Your task to perform on an android device: What's the weather going to be tomorrow? Image 0: 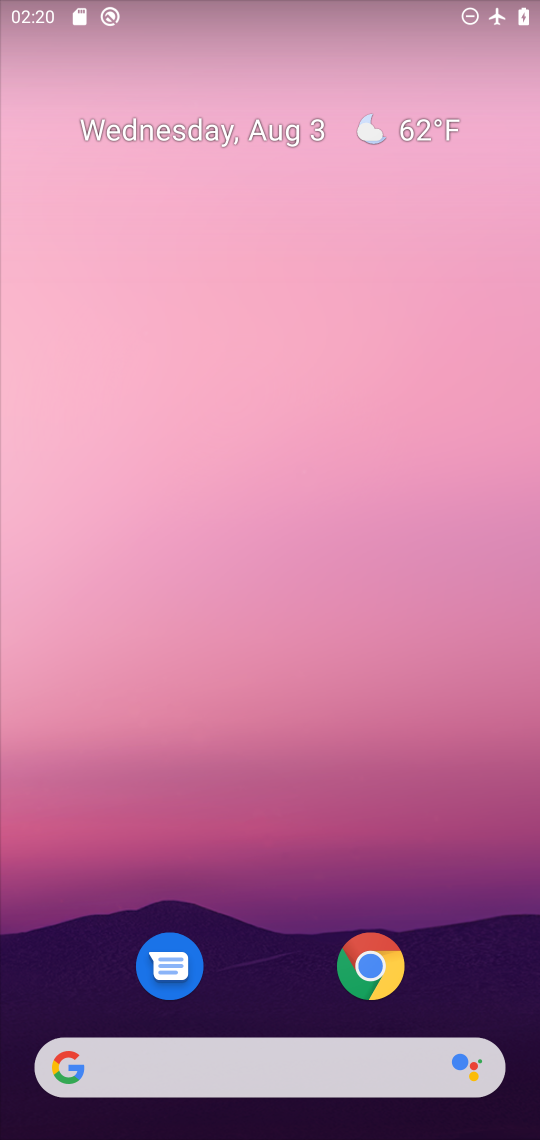
Step 0: drag from (295, 988) to (335, 337)
Your task to perform on an android device: What's the weather going to be tomorrow? Image 1: 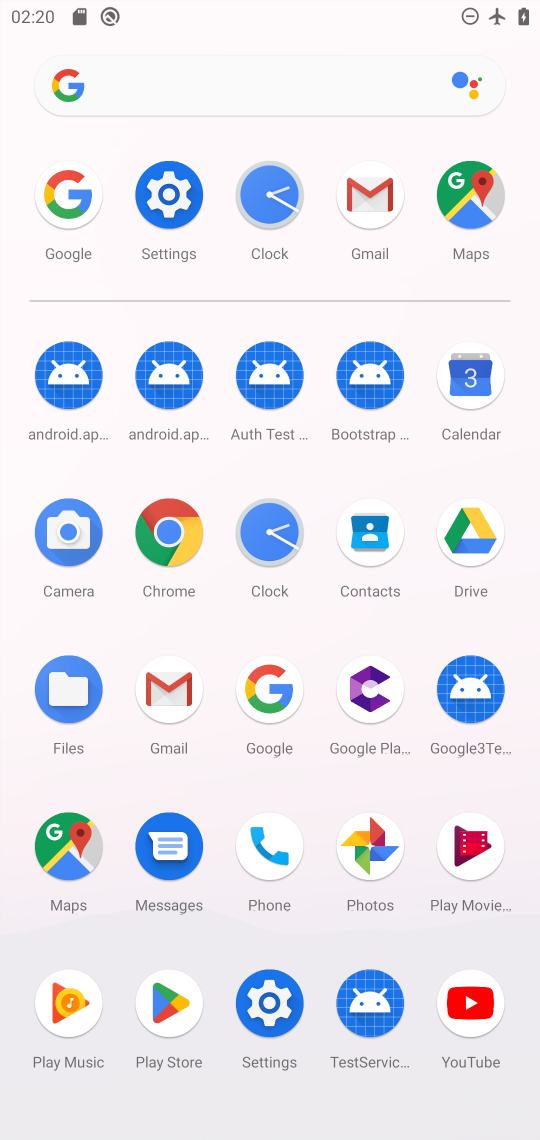
Step 1: click (252, 683)
Your task to perform on an android device: What's the weather going to be tomorrow? Image 2: 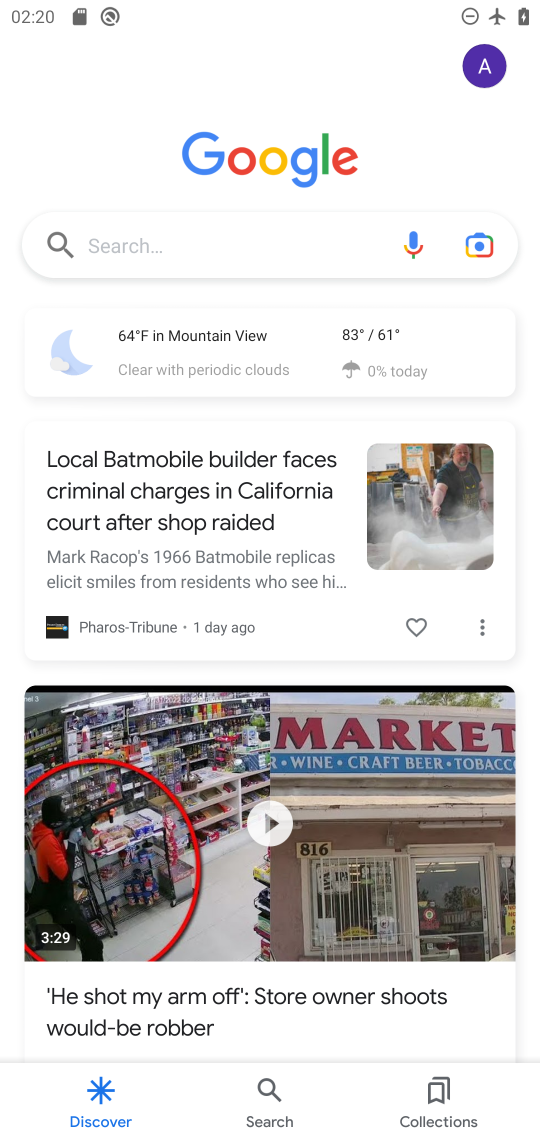
Step 2: click (311, 344)
Your task to perform on an android device: What's the weather going to be tomorrow? Image 3: 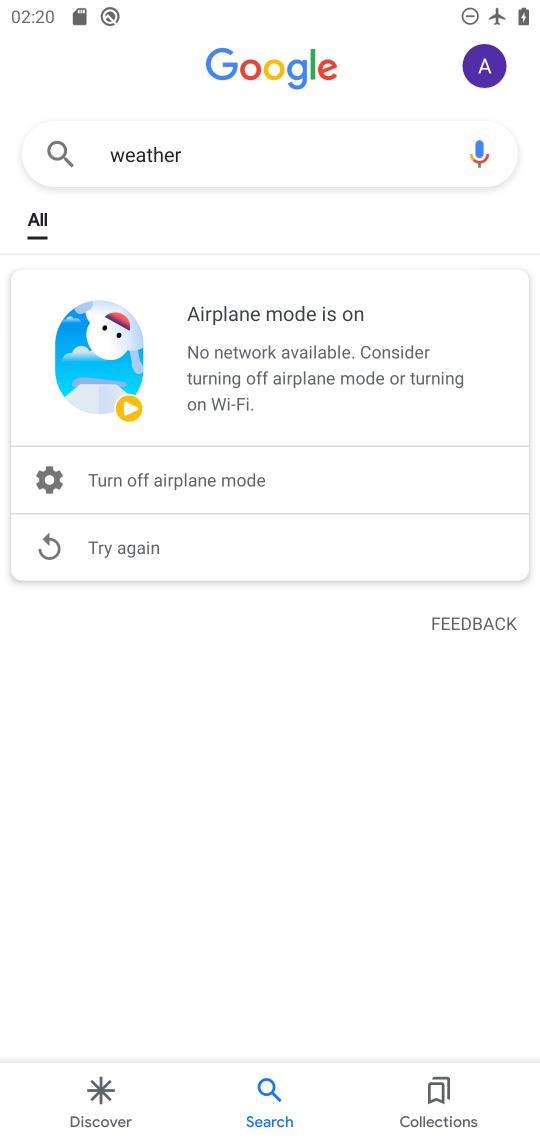
Step 3: task complete